Your task to perform on an android device: Clear the shopping cart on target.com. Search for acer nitro on target.com, select the first entry, and add it to the cart. Image 0: 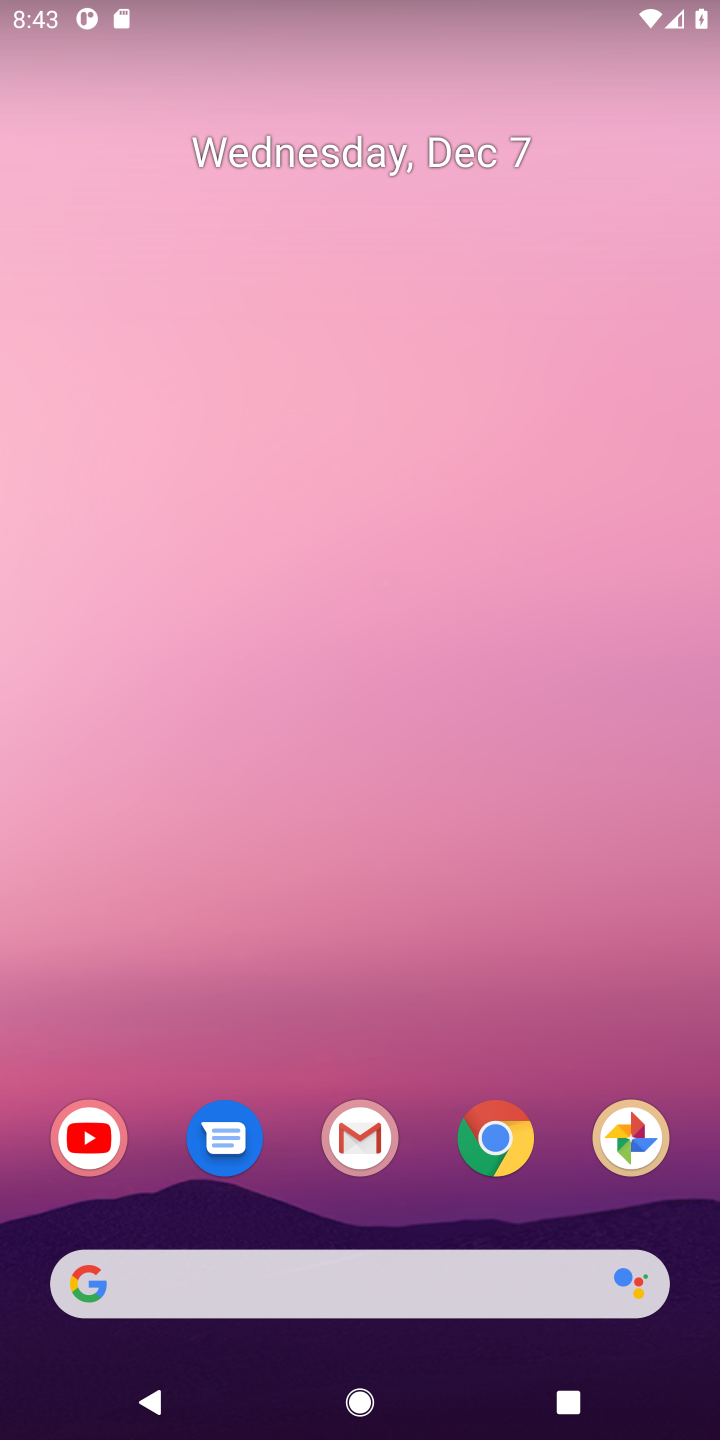
Step 0: press home button
Your task to perform on an android device: Clear the shopping cart on target.com. Search for acer nitro on target.com, select the first entry, and add it to the cart. Image 1: 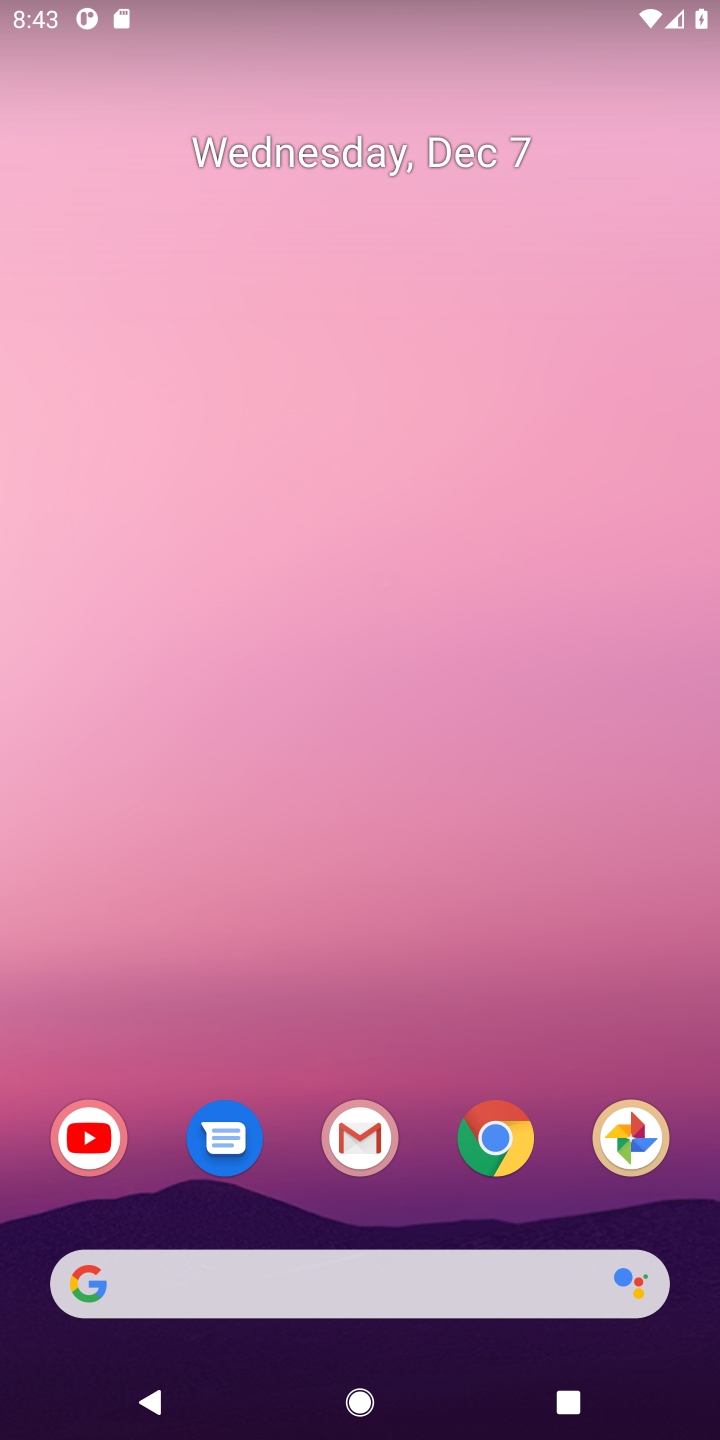
Step 1: click (166, 1282)
Your task to perform on an android device: Clear the shopping cart on target.com. Search for acer nitro on target.com, select the first entry, and add it to the cart. Image 2: 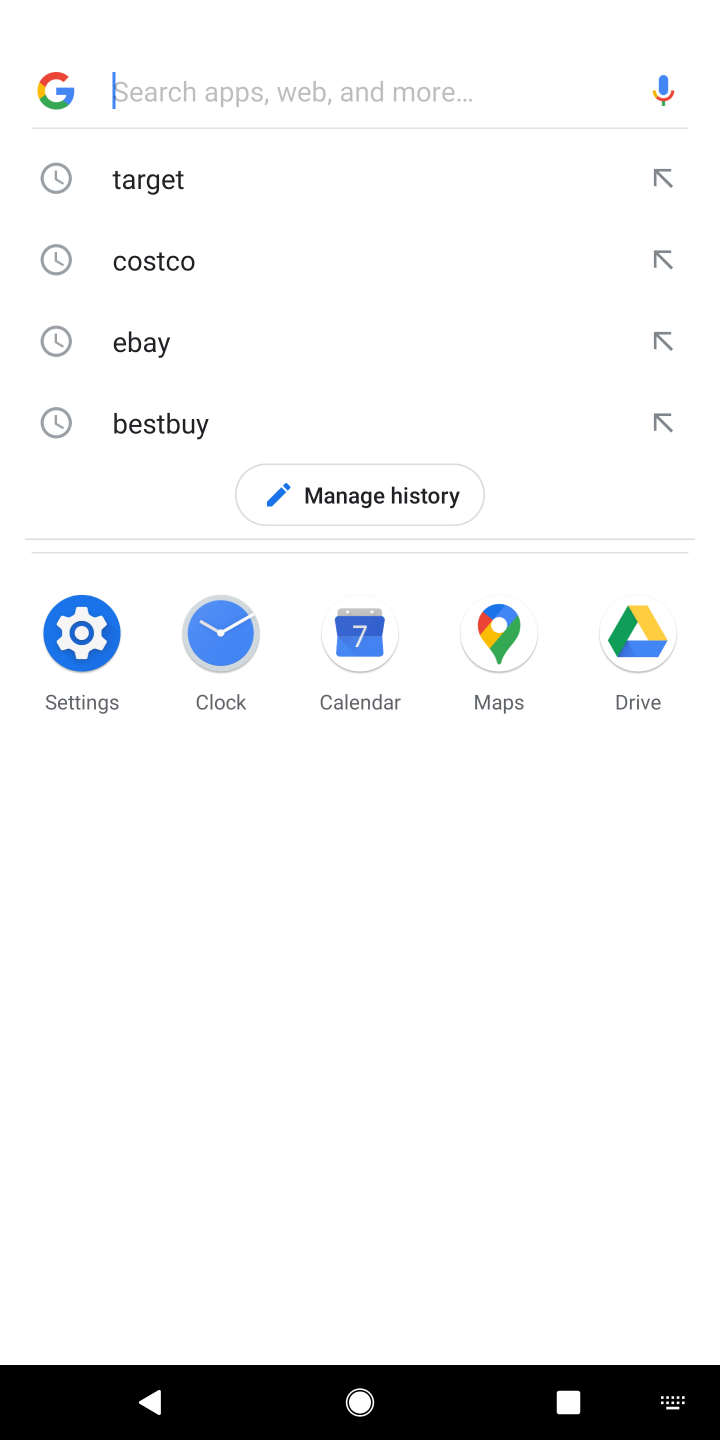
Step 2: type "target.com"
Your task to perform on an android device: Clear the shopping cart on target.com. Search for acer nitro on target.com, select the first entry, and add it to the cart. Image 3: 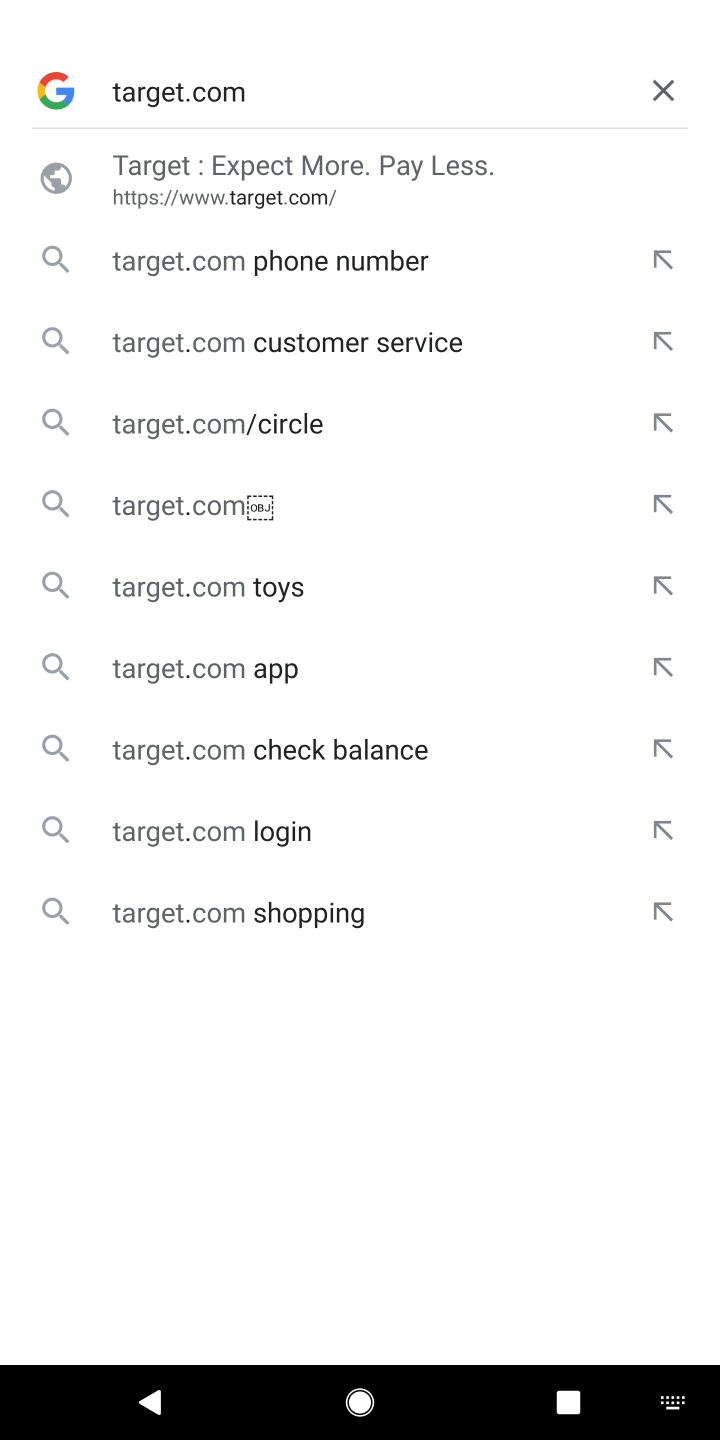
Step 3: press enter
Your task to perform on an android device: Clear the shopping cart on target.com. Search for acer nitro on target.com, select the first entry, and add it to the cart. Image 4: 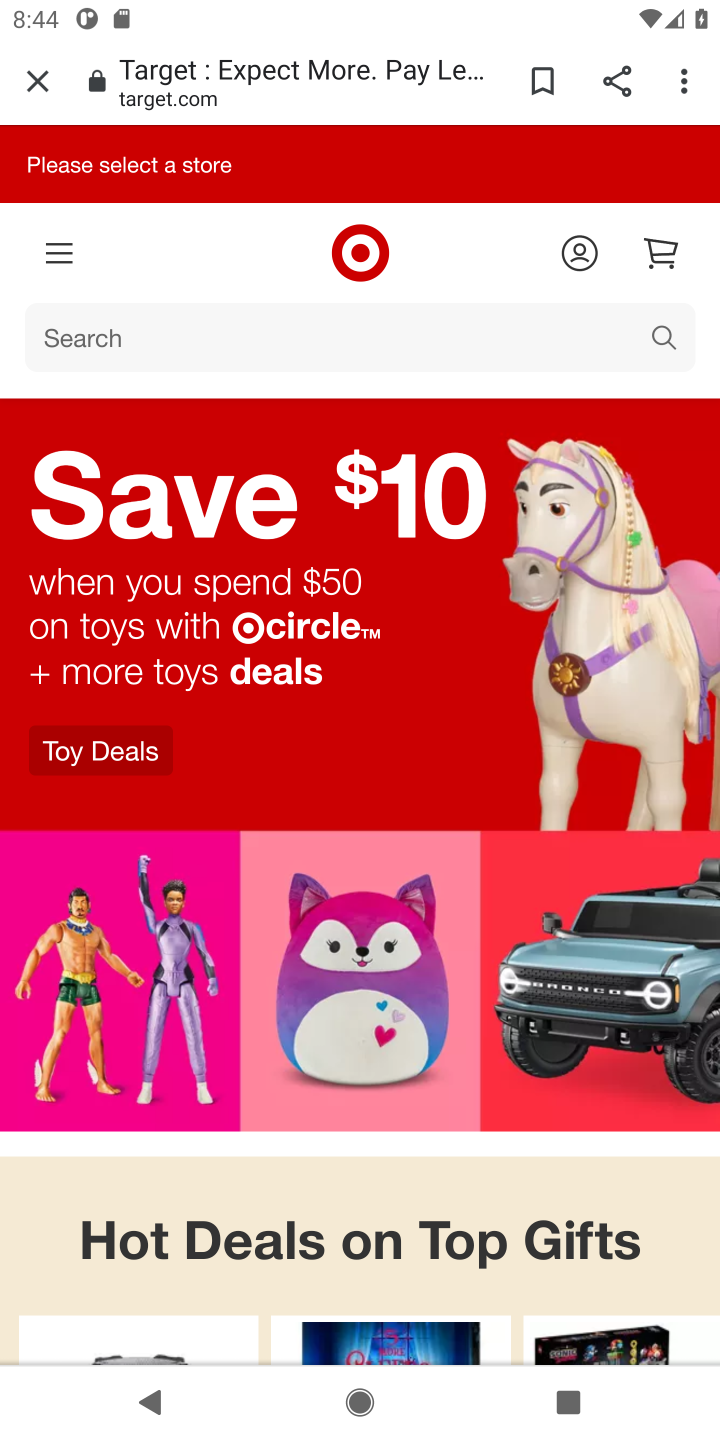
Step 4: click (649, 242)
Your task to perform on an android device: Clear the shopping cart on target.com. Search for acer nitro on target.com, select the first entry, and add it to the cart. Image 5: 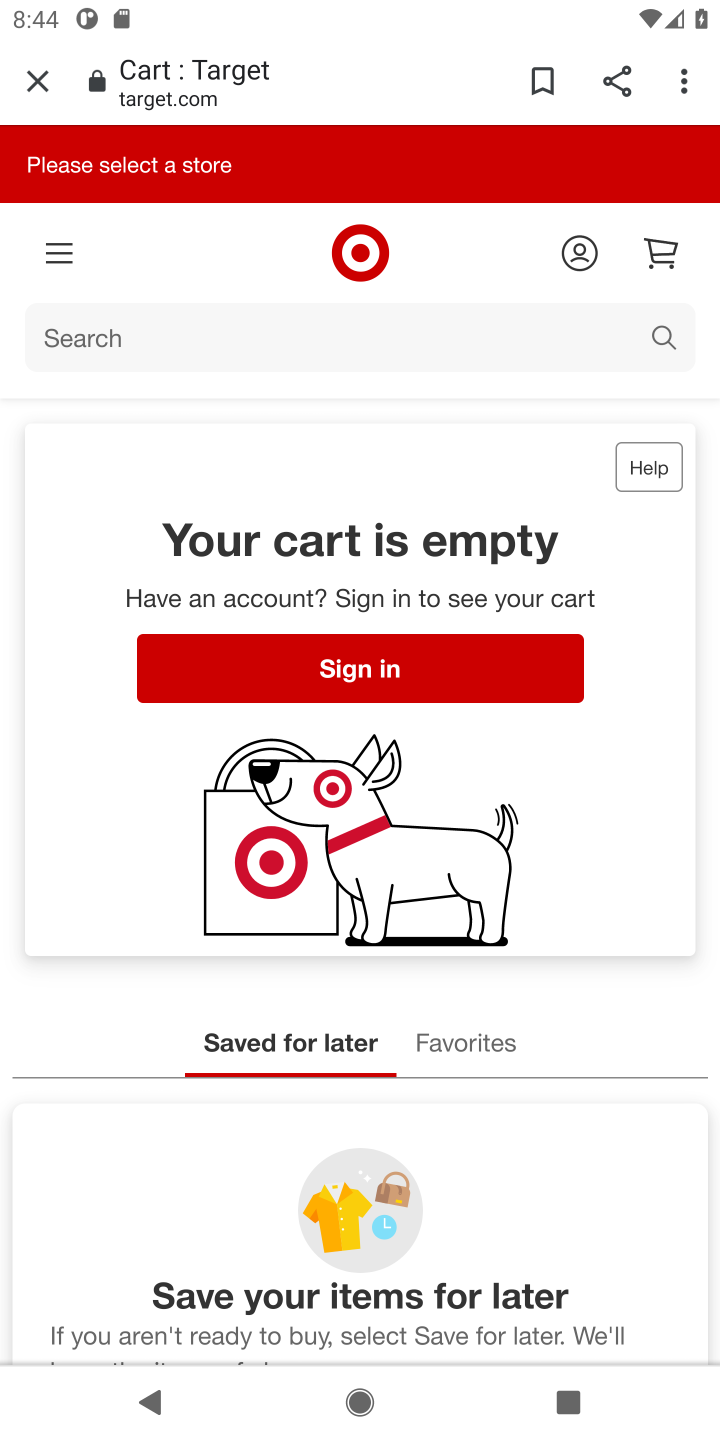
Step 5: click (136, 346)
Your task to perform on an android device: Clear the shopping cart on target.com. Search for acer nitro on target.com, select the first entry, and add it to the cart. Image 6: 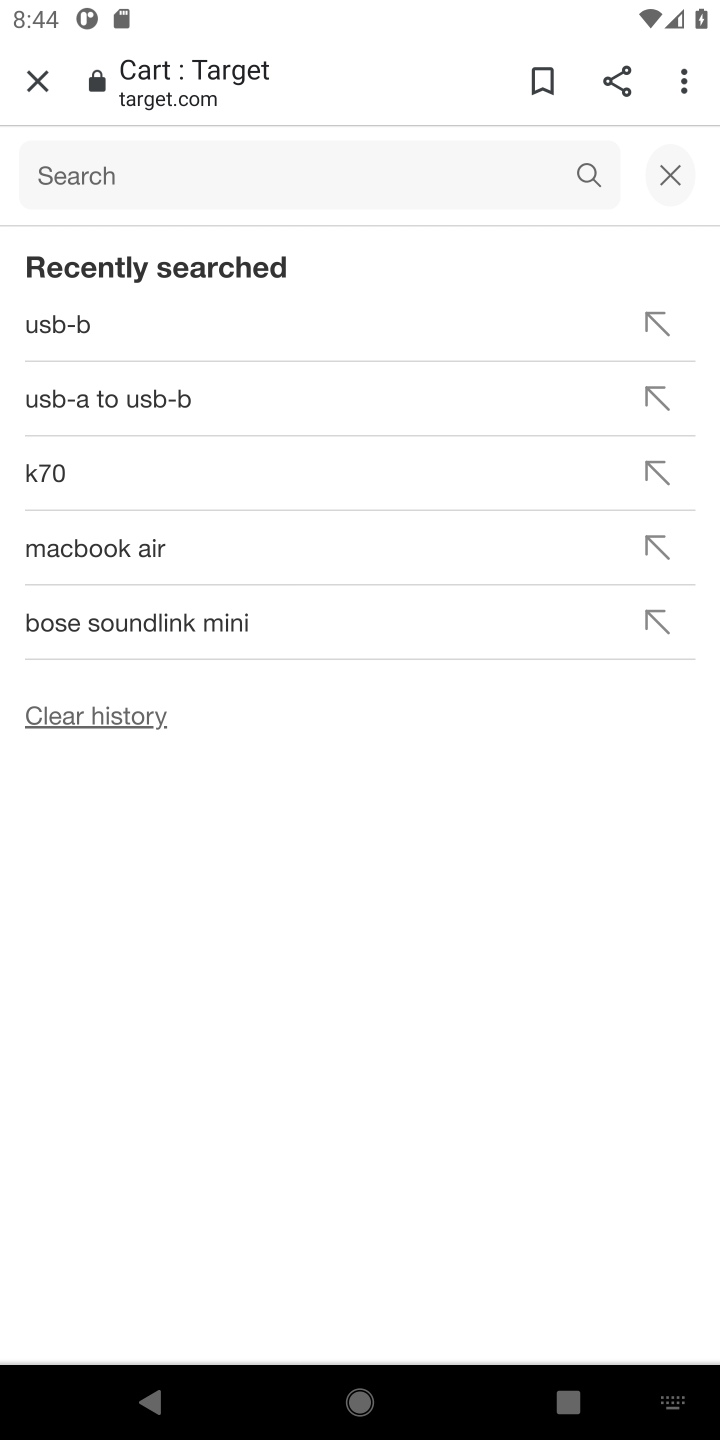
Step 6: press enter
Your task to perform on an android device: Clear the shopping cart on target.com. Search for acer nitro on target.com, select the first entry, and add it to the cart. Image 7: 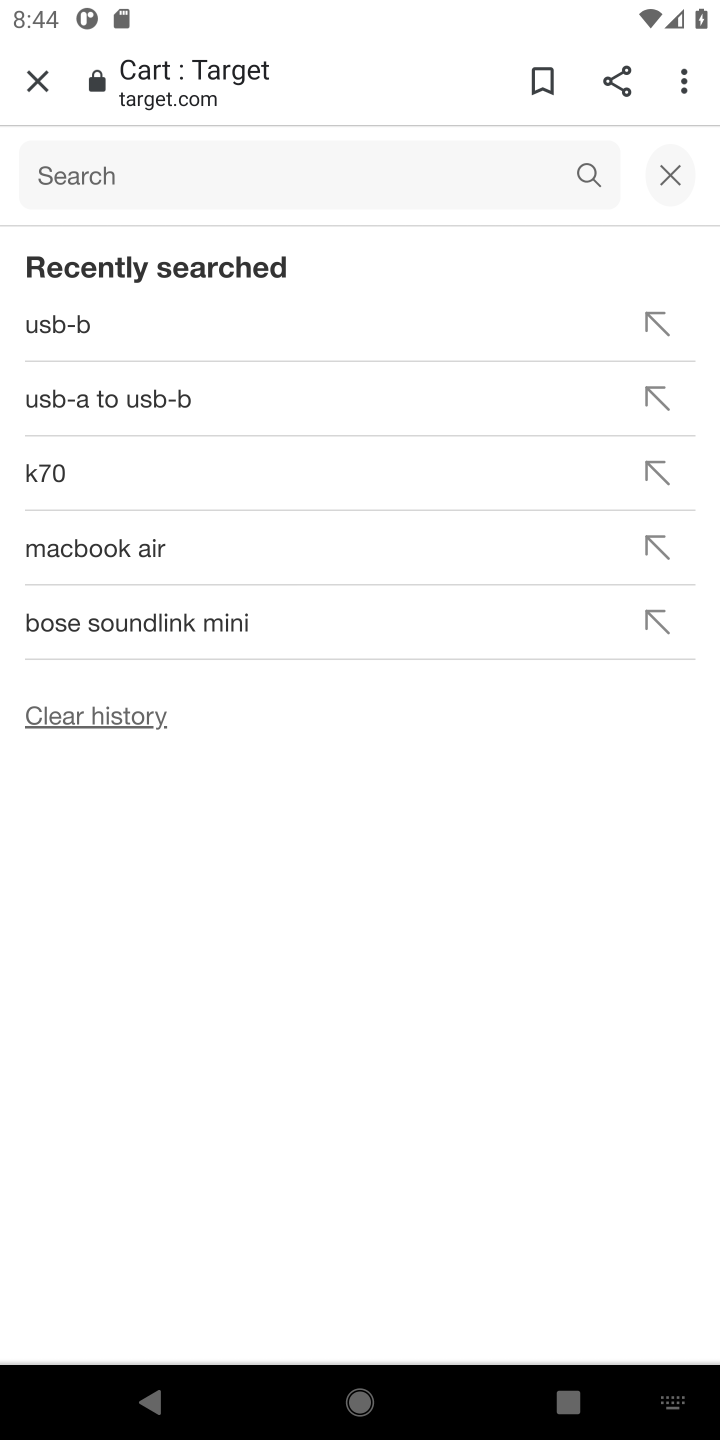
Step 7: type " acer nitro "
Your task to perform on an android device: Clear the shopping cart on target.com. Search for acer nitro on target.com, select the first entry, and add it to the cart. Image 8: 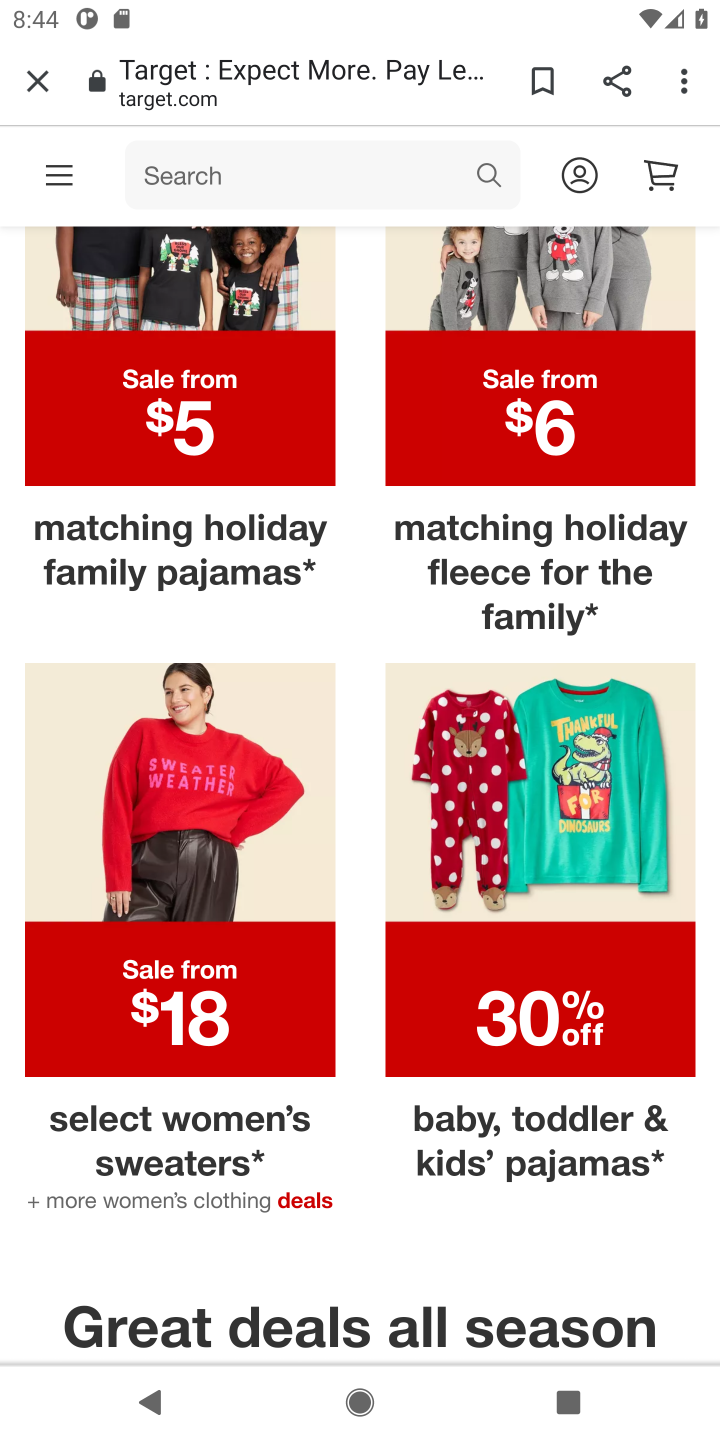
Step 8: task complete